Your task to perform on an android device: allow notifications from all sites in the chrome app Image 0: 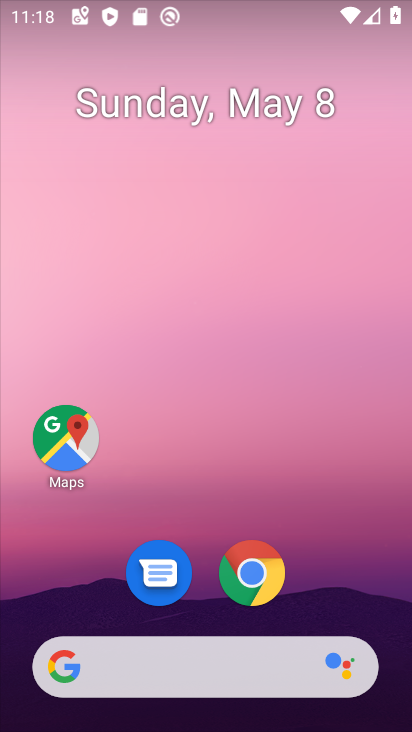
Step 0: drag from (345, 542) to (242, 18)
Your task to perform on an android device: allow notifications from all sites in the chrome app Image 1: 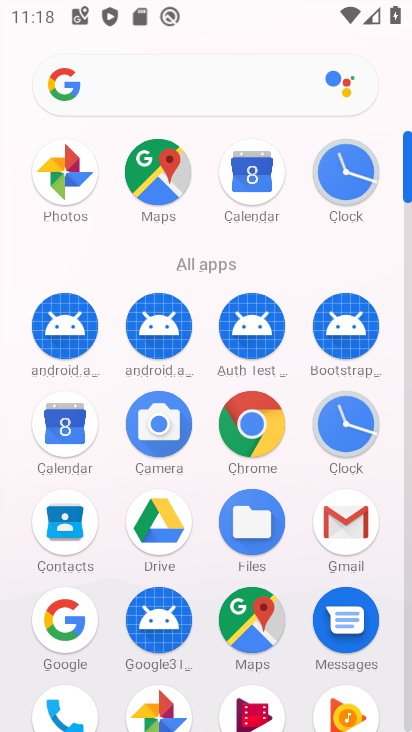
Step 1: click (250, 422)
Your task to perform on an android device: allow notifications from all sites in the chrome app Image 2: 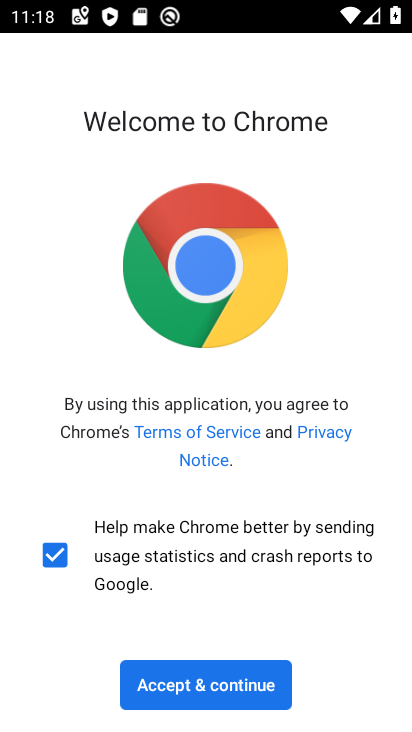
Step 2: click (207, 679)
Your task to perform on an android device: allow notifications from all sites in the chrome app Image 3: 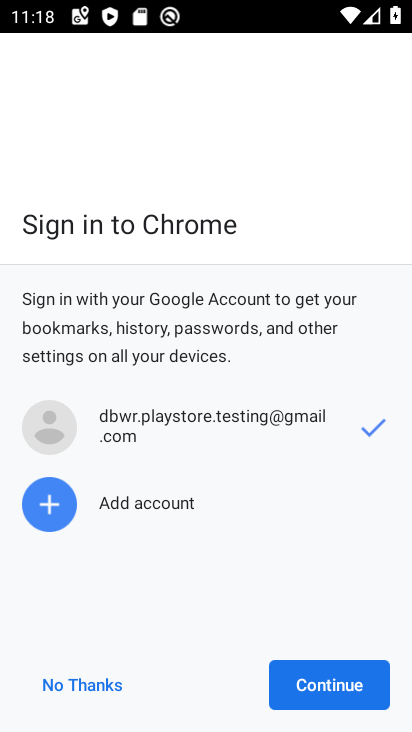
Step 3: click (299, 673)
Your task to perform on an android device: allow notifications from all sites in the chrome app Image 4: 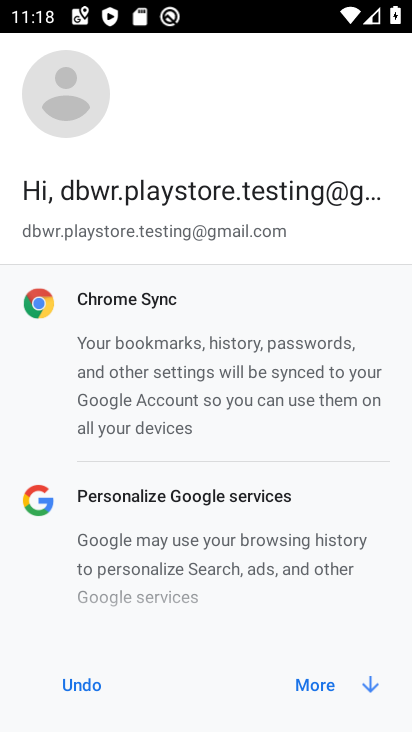
Step 4: click (319, 685)
Your task to perform on an android device: allow notifications from all sites in the chrome app Image 5: 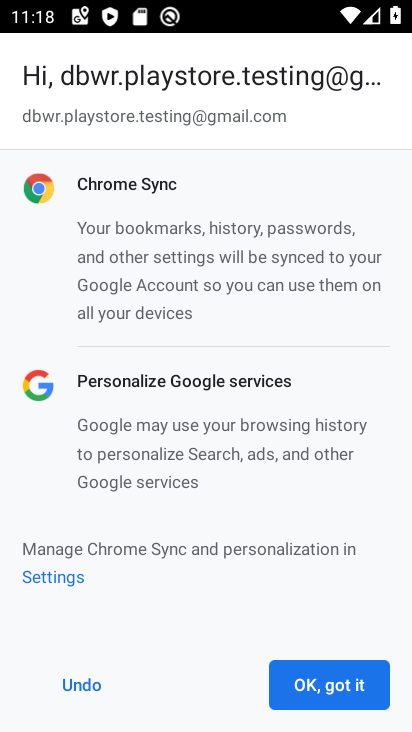
Step 5: click (319, 685)
Your task to perform on an android device: allow notifications from all sites in the chrome app Image 6: 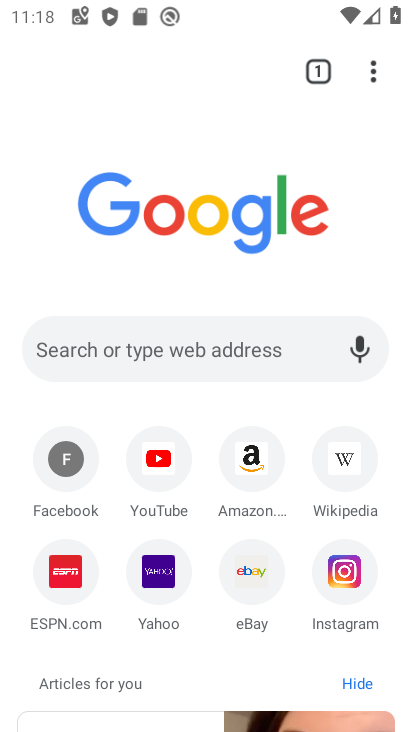
Step 6: drag from (371, 74) to (112, 608)
Your task to perform on an android device: allow notifications from all sites in the chrome app Image 7: 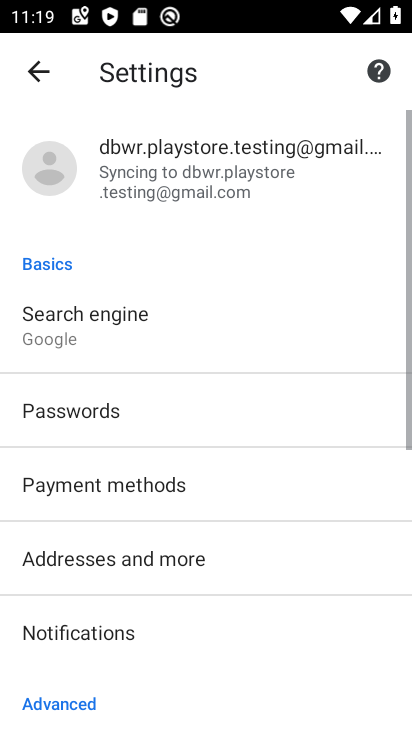
Step 7: drag from (111, 607) to (175, 126)
Your task to perform on an android device: allow notifications from all sites in the chrome app Image 8: 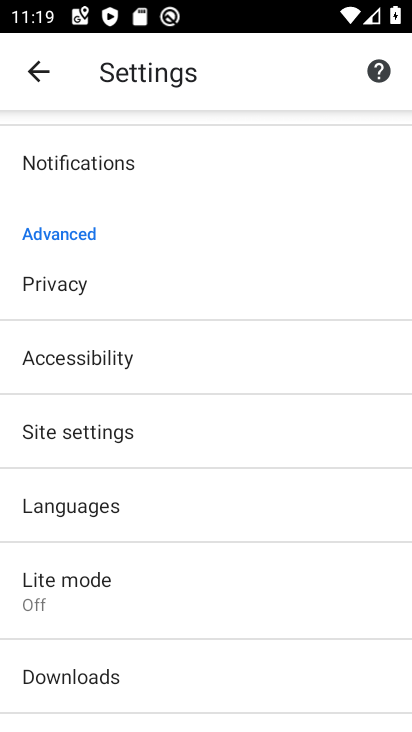
Step 8: click (118, 411)
Your task to perform on an android device: allow notifications from all sites in the chrome app Image 9: 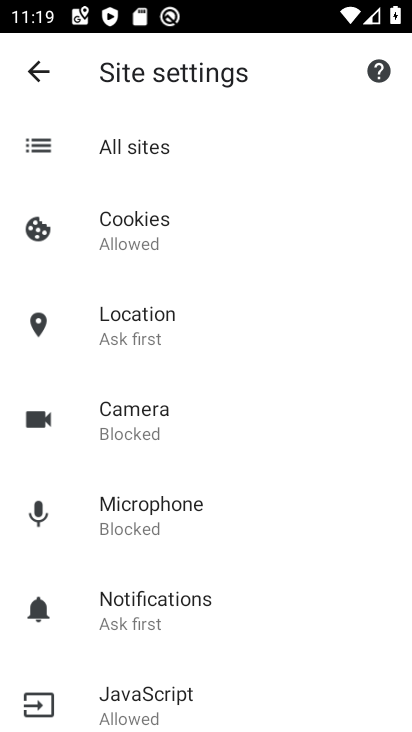
Step 9: drag from (277, 649) to (269, 255)
Your task to perform on an android device: allow notifications from all sites in the chrome app Image 10: 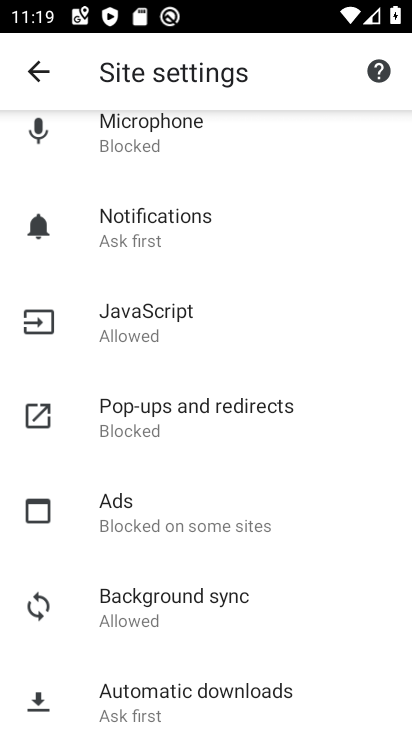
Step 10: drag from (204, 147) to (197, 274)
Your task to perform on an android device: allow notifications from all sites in the chrome app Image 11: 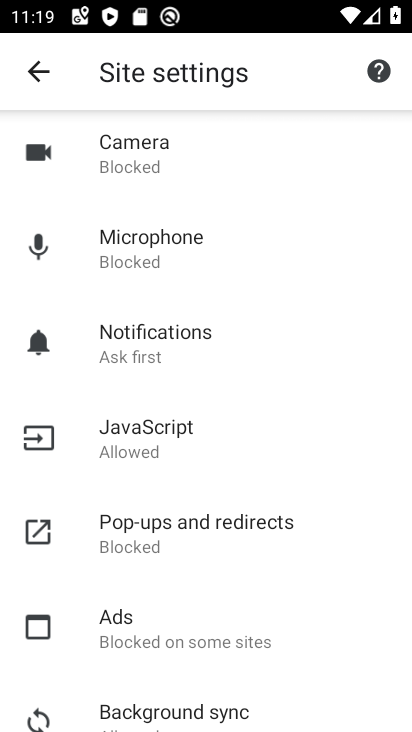
Step 11: click (186, 344)
Your task to perform on an android device: allow notifications from all sites in the chrome app Image 12: 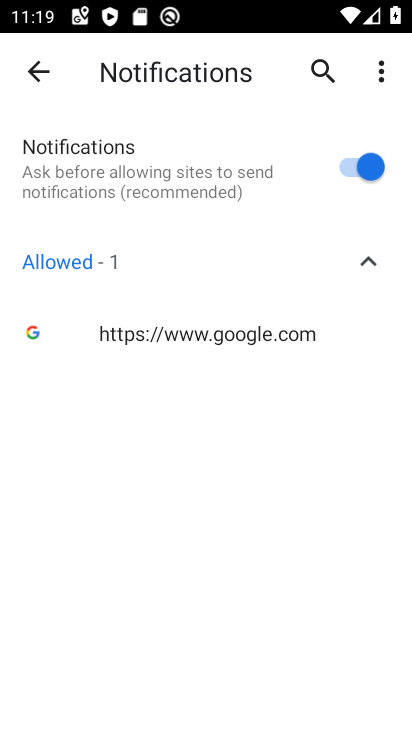
Step 12: task complete